Your task to perform on an android device: turn on location history Image 0: 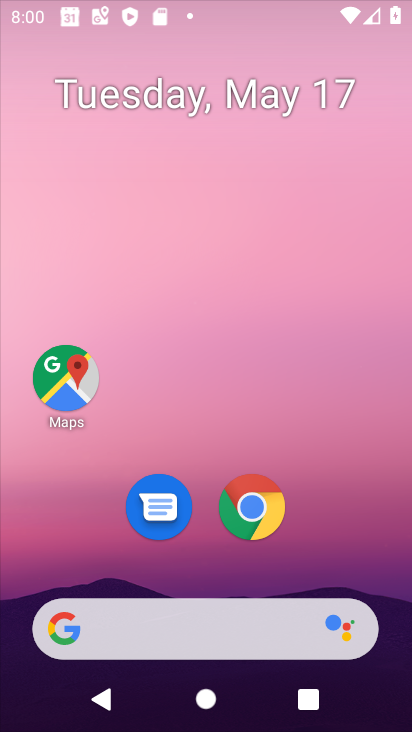
Step 0: drag from (329, 622) to (261, 118)
Your task to perform on an android device: turn on location history Image 1: 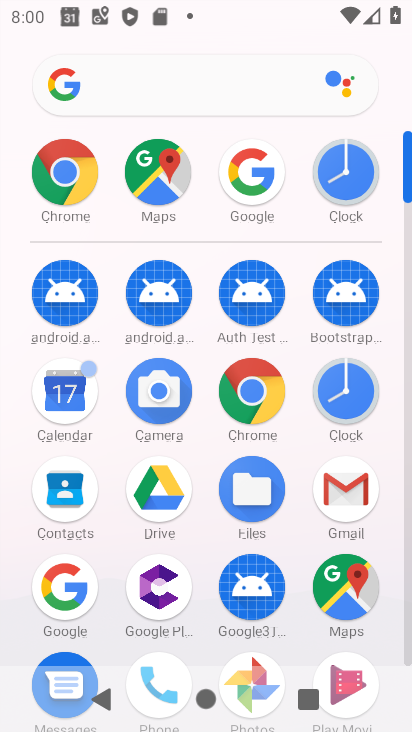
Step 1: click (156, 178)
Your task to perform on an android device: turn on location history Image 2: 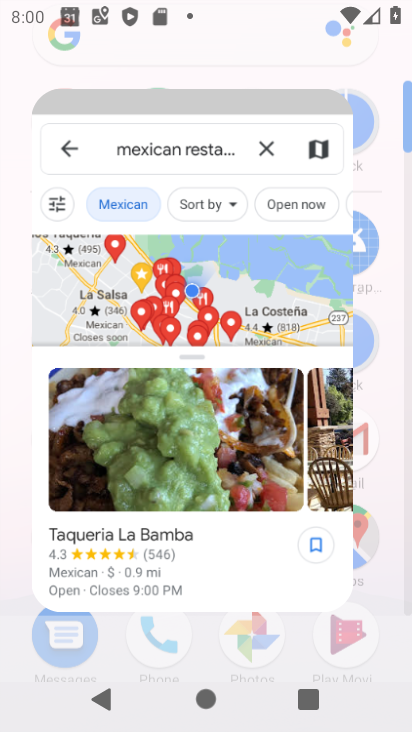
Step 2: click (156, 178)
Your task to perform on an android device: turn on location history Image 3: 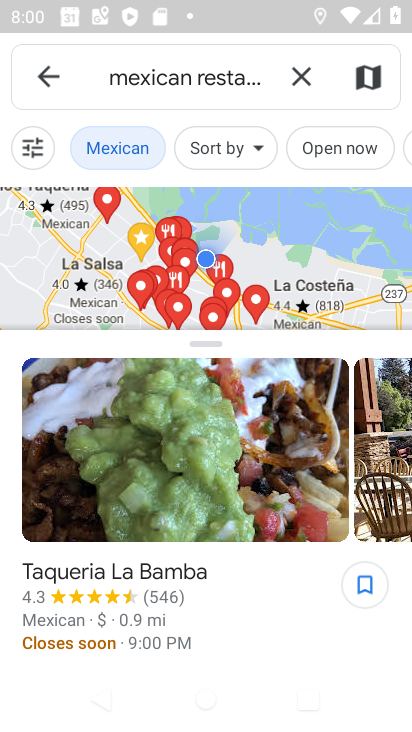
Step 3: click (42, 74)
Your task to perform on an android device: turn on location history Image 4: 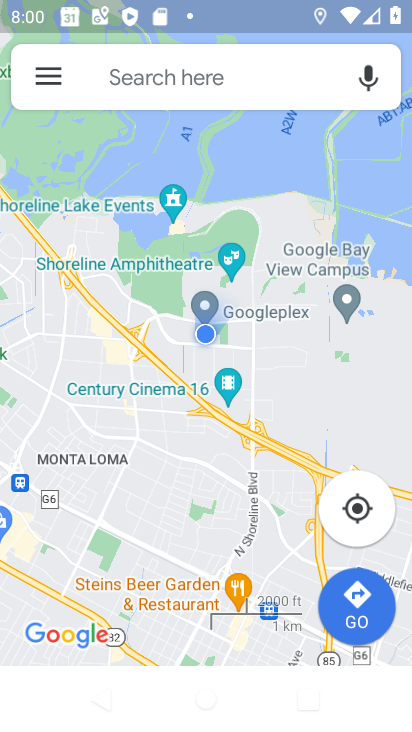
Step 4: click (54, 75)
Your task to perform on an android device: turn on location history Image 5: 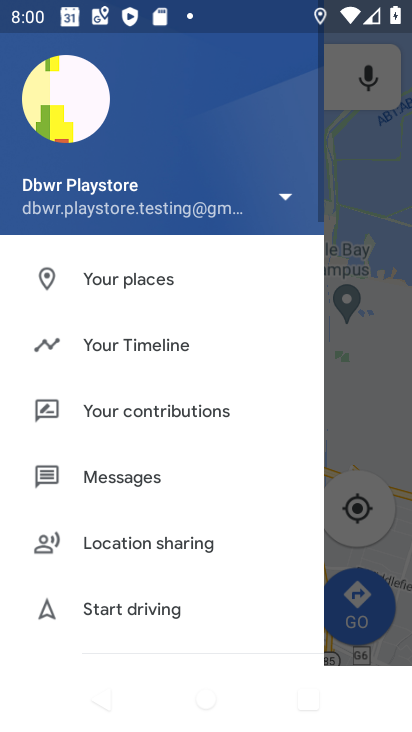
Step 5: click (156, 352)
Your task to perform on an android device: turn on location history Image 6: 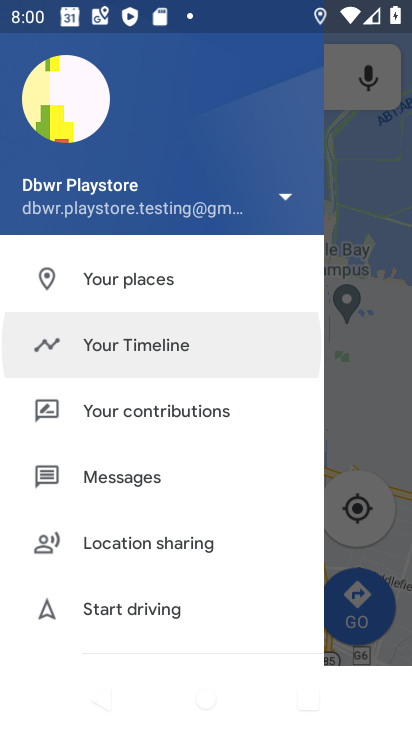
Step 6: click (155, 345)
Your task to perform on an android device: turn on location history Image 7: 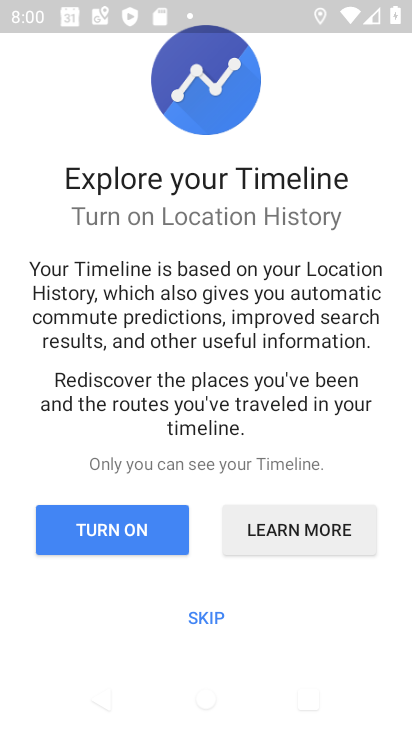
Step 7: click (125, 535)
Your task to perform on an android device: turn on location history Image 8: 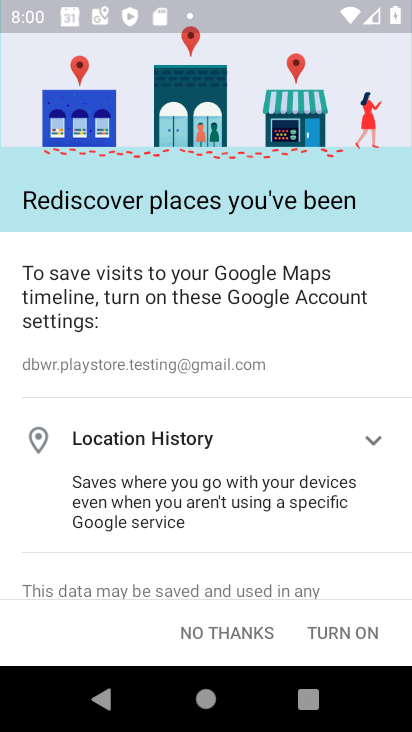
Step 8: click (327, 632)
Your task to perform on an android device: turn on location history Image 9: 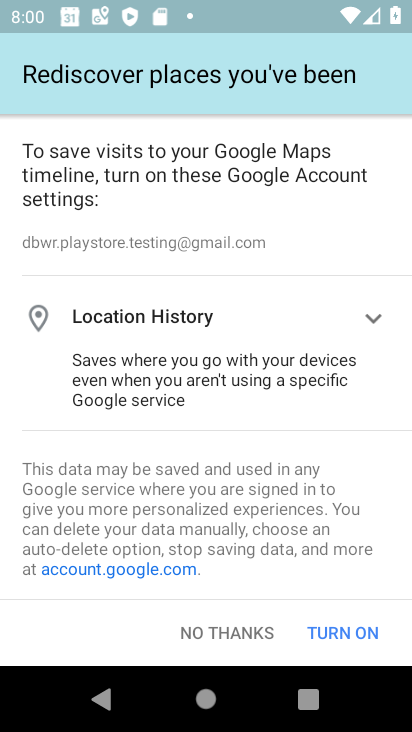
Step 9: click (316, 630)
Your task to perform on an android device: turn on location history Image 10: 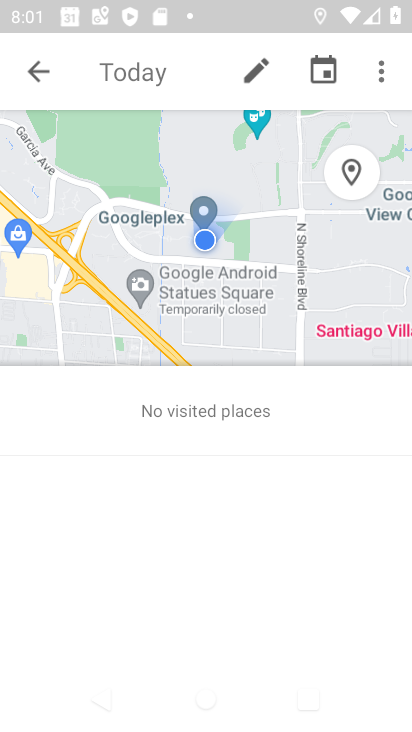
Step 10: task complete